Your task to perform on an android device: Go to network settings Image 0: 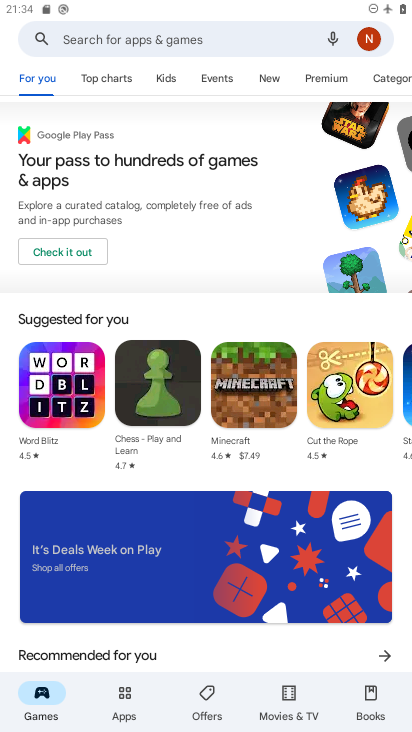
Step 0: press home button
Your task to perform on an android device: Go to network settings Image 1: 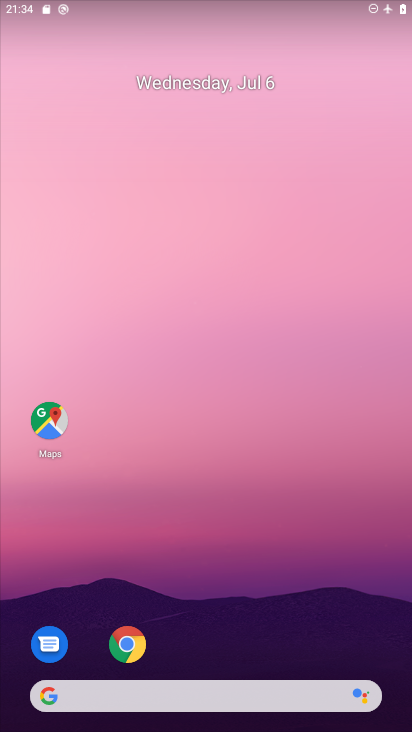
Step 1: drag from (241, 624) to (249, 119)
Your task to perform on an android device: Go to network settings Image 2: 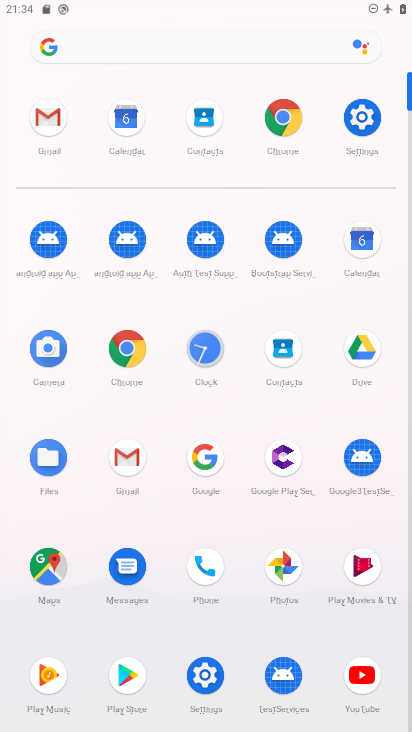
Step 2: click (350, 118)
Your task to perform on an android device: Go to network settings Image 3: 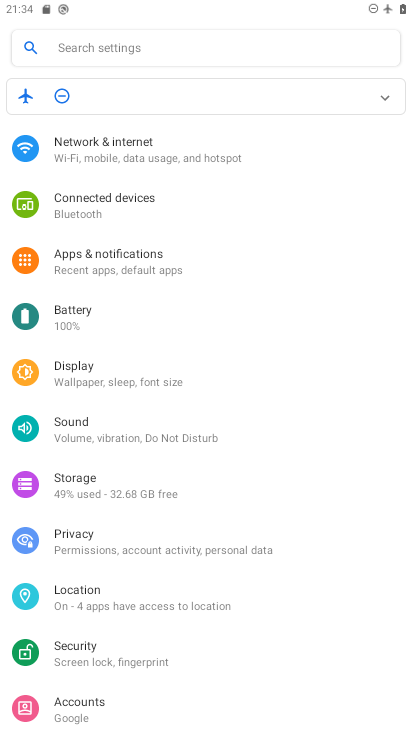
Step 3: click (196, 158)
Your task to perform on an android device: Go to network settings Image 4: 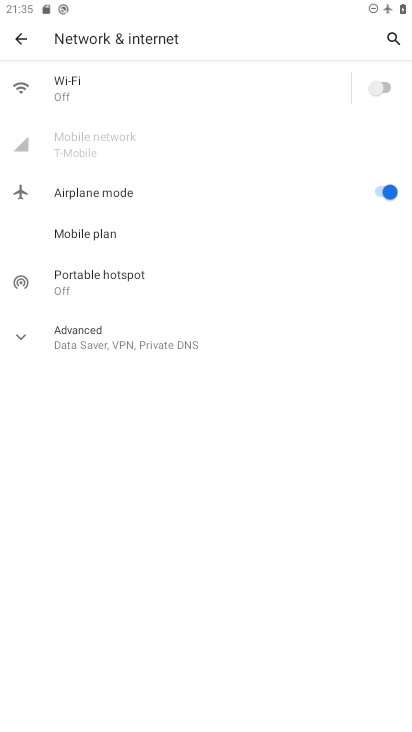
Step 4: task complete